Your task to perform on an android device: Open settings Image 0: 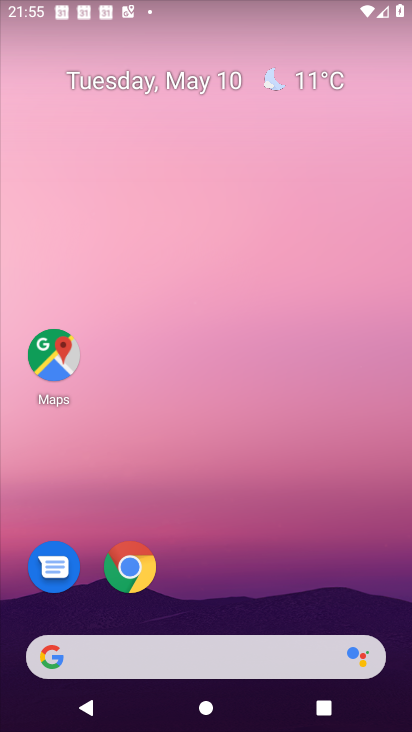
Step 0: drag from (170, 626) to (154, 350)
Your task to perform on an android device: Open settings Image 1: 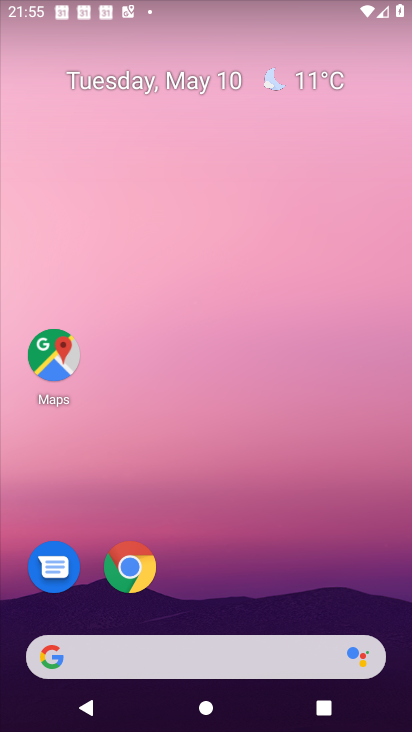
Step 1: drag from (198, 642) to (191, 287)
Your task to perform on an android device: Open settings Image 2: 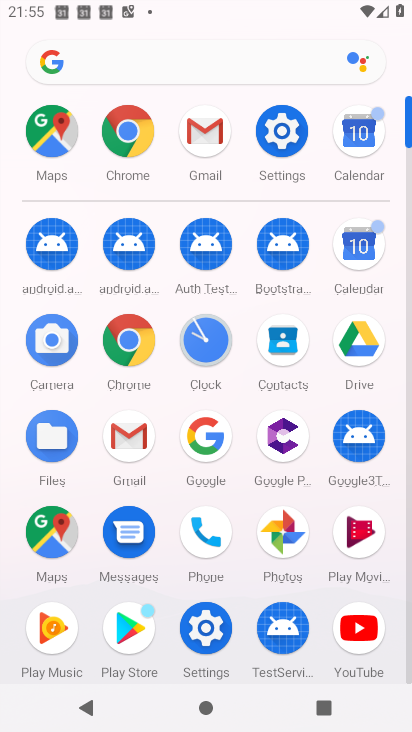
Step 2: click (292, 147)
Your task to perform on an android device: Open settings Image 3: 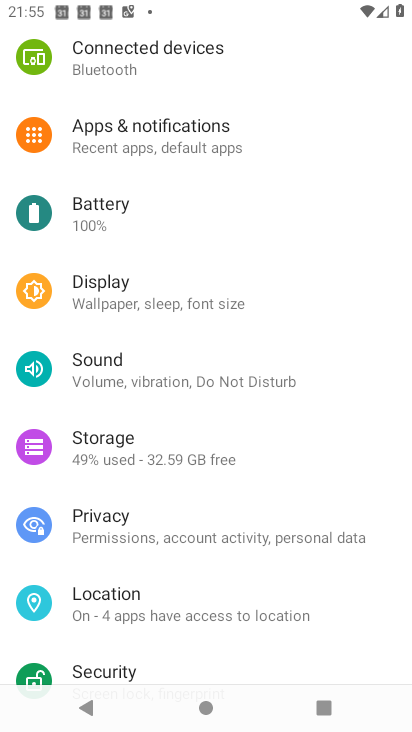
Step 3: task complete